Your task to perform on an android device: delete the emails in spam in the gmail app Image 0: 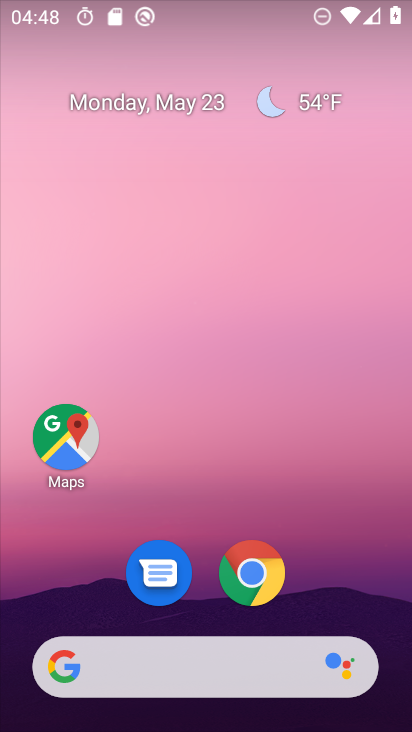
Step 0: drag from (306, 611) to (270, 45)
Your task to perform on an android device: delete the emails in spam in the gmail app Image 1: 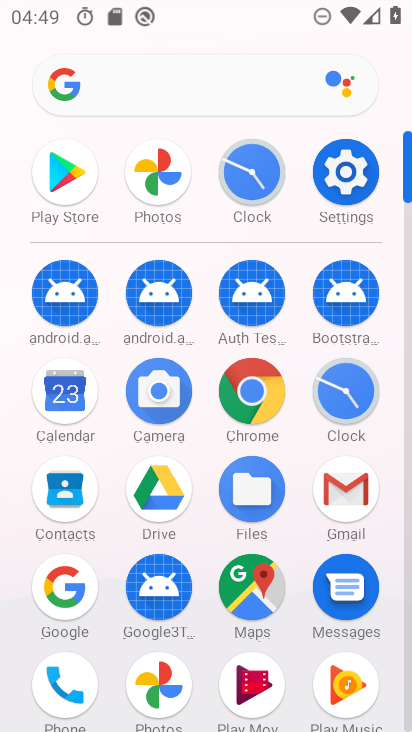
Step 1: click (356, 488)
Your task to perform on an android device: delete the emails in spam in the gmail app Image 2: 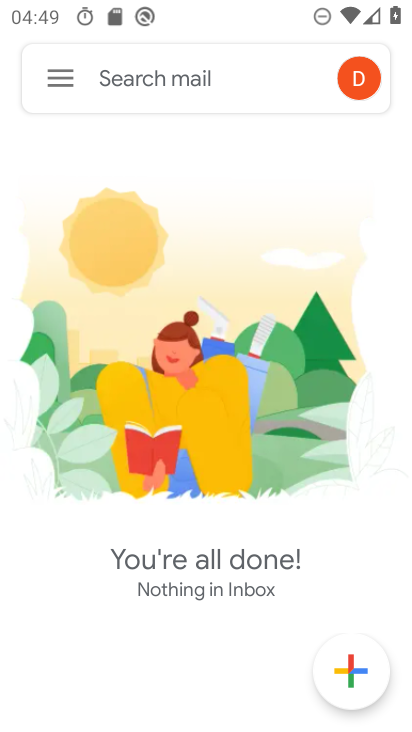
Step 2: click (61, 77)
Your task to perform on an android device: delete the emails in spam in the gmail app Image 3: 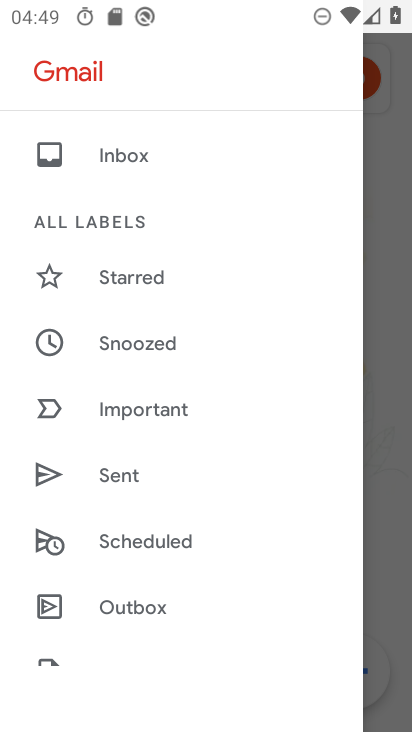
Step 3: drag from (225, 616) to (213, 474)
Your task to perform on an android device: delete the emails in spam in the gmail app Image 4: 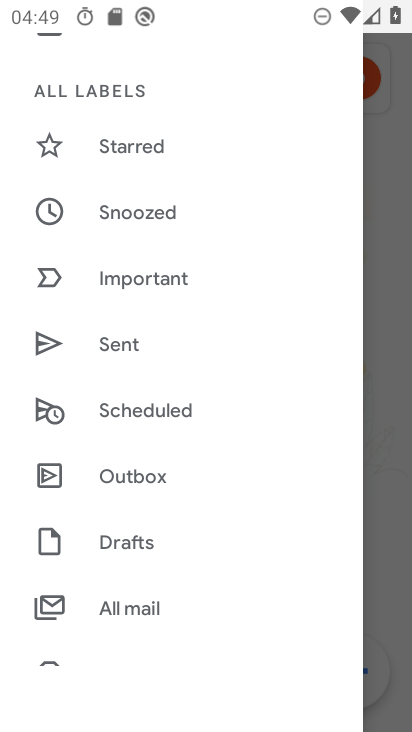
Step 4: drag from (204, 545) to (227, 194)
Your task to perform on an android device: delete the emails in spam in the gmail app Image 5: 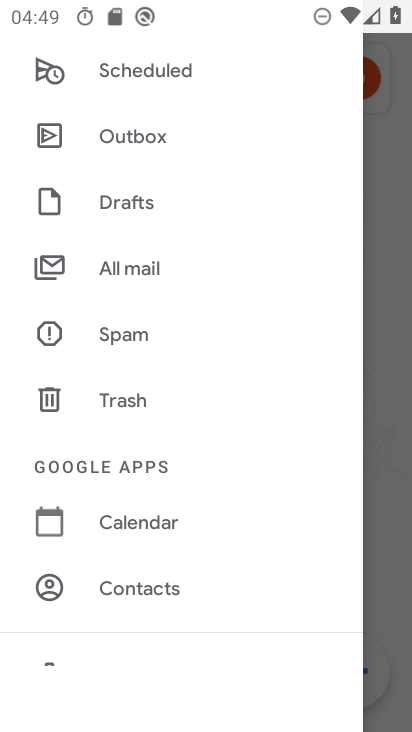
Step 5: click (114, 333)
Your task to perform on an android device: delete the emails in spam in the gmail app Image 6: 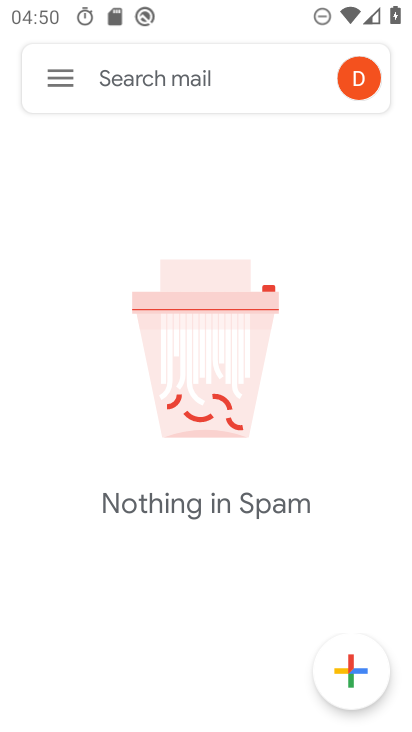
Step 6: task complete